Your task to perform on an android device: toggle notifications settings in the gmail app Image 0: 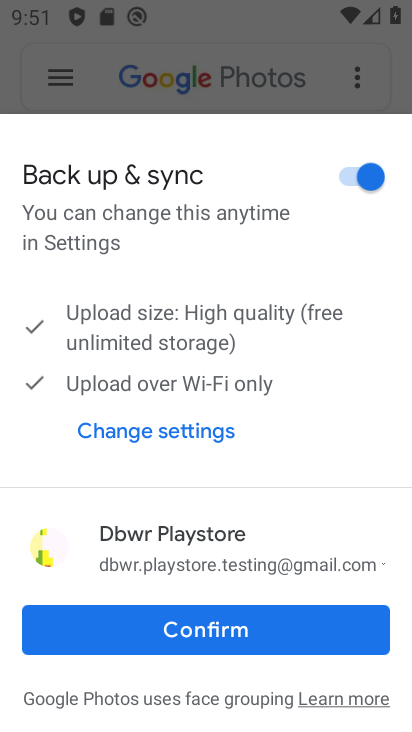
Step 0: press home button
Your task to perform on an android device: toggle notifications settings in the gmail app Image 1: 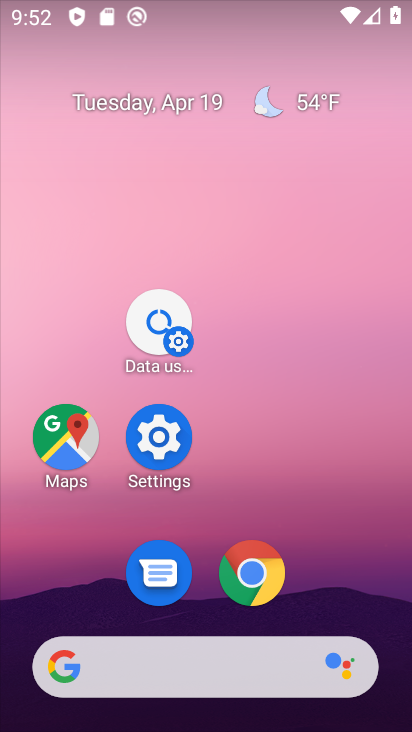
Step 1: drag from (370, 401) to (355, 1)
Your task to perform on an android device: toggle notifications settings in the gmail app Image 2: 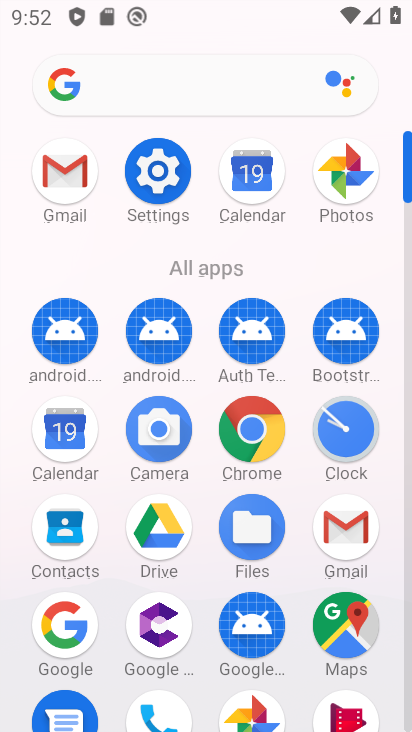
Step 2: click (70, 175)
Your task to perform on an android device: toggle notifications settings in the gmail app Image 3: 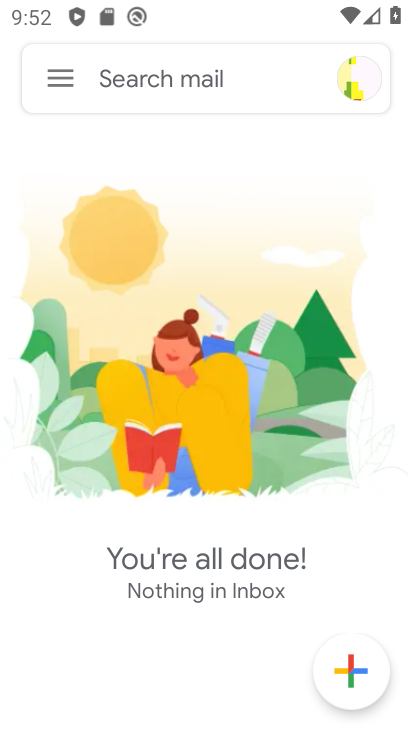
Step 3: click (60, 87)
Your task to perform on an android device: toggle notifications settings in the gmail app Image 4: 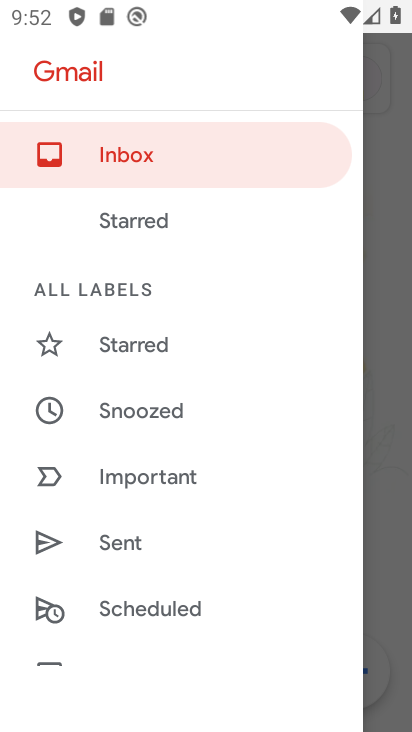
Step 4: drag from (264, 584) to (283, 82)
Your task to perform on an android device: toggle notifications settings in the gmail app Image 5: 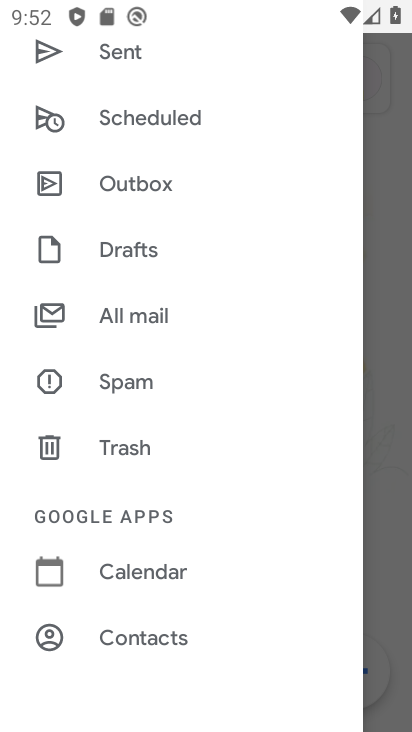
Step 5: drag from (227, 602) to (252, 177)
Your task to perform on an android device: toggle notifications settings in the gmail app Image 6: 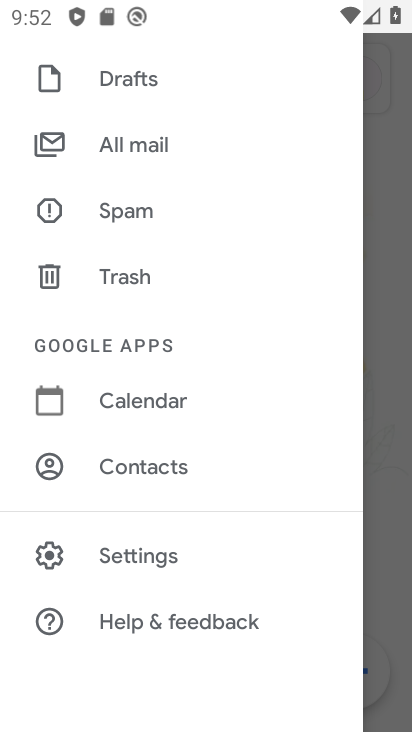
Step 6: click (135, 554)
Your task to perform on an android device: toggle notifications settings in the gmail app Image 7: 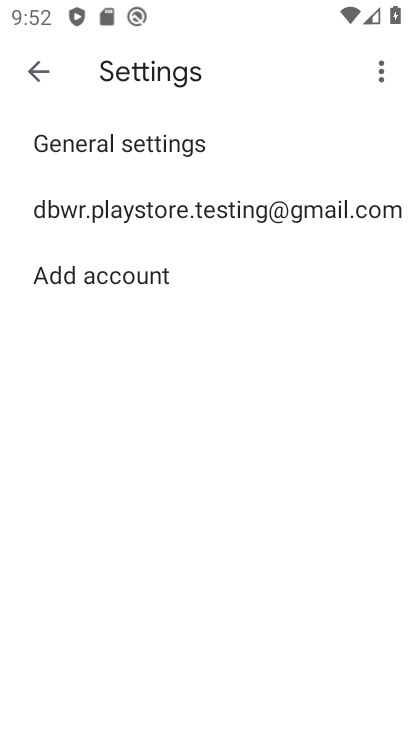
Step 7: click (134, 146)
Your task to perform on an android device: toggle notifications settings in the gmail app Image 8: 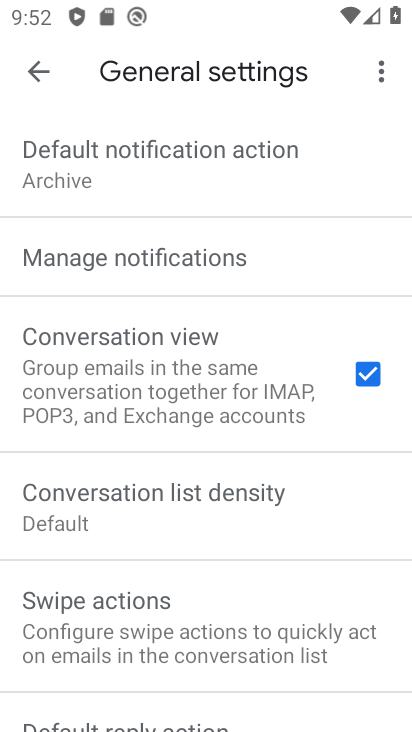
Step 8: click (169, 260)
Your task to perform on an android device: toggle notifications settings in the gmail app Image 9: 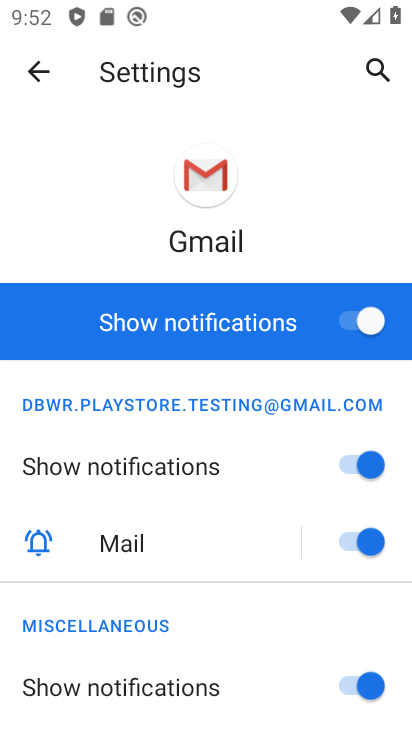
Step 9: click (371, 315)
Your task to perform on an android device: toggle notifications settings in the gmail app Image 10: 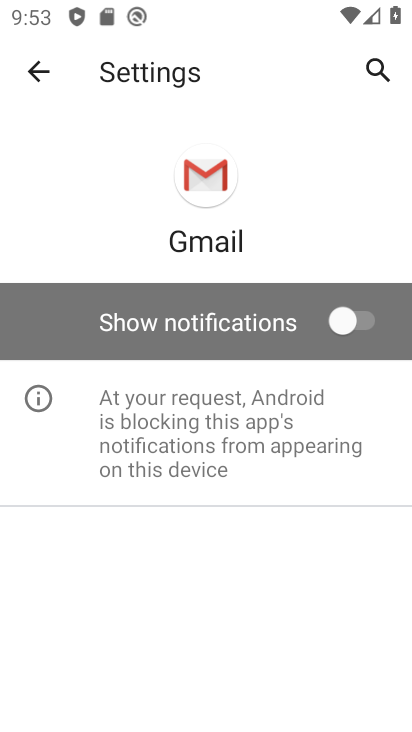
Step 10: task complete